Your task to perform on an android device: Open Google Chrome Image 0: 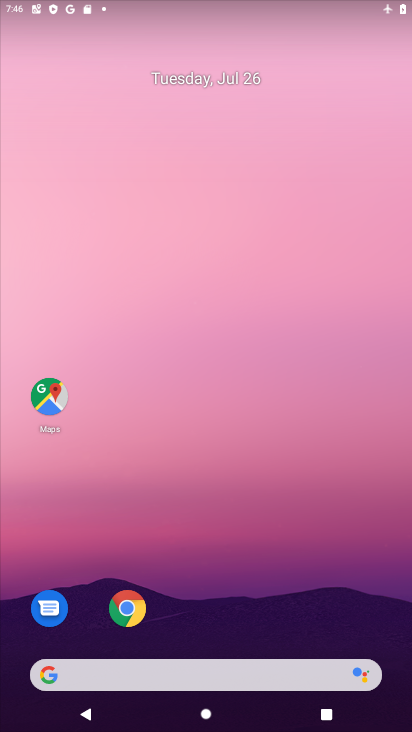
Step 0: press home button
Your task to perform on an android device: Open Google Chrome Image 1: 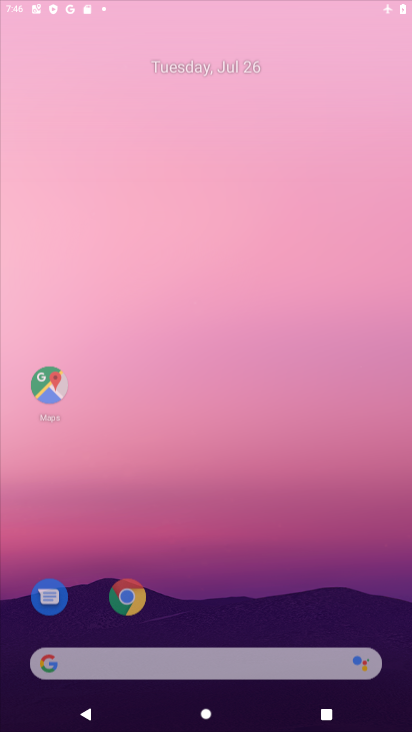
Step 1: drag from (248, 477) to (219, 204)
Your task to perform on an android device: Open Google Chrome Image 2: 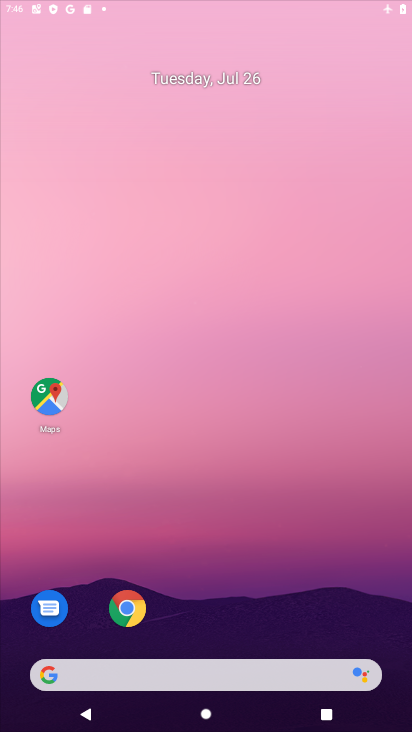
Step 2: drag from (195, 697) to (173, 220)
Your task to perform on an android device: Open Google Chrome Image 3: 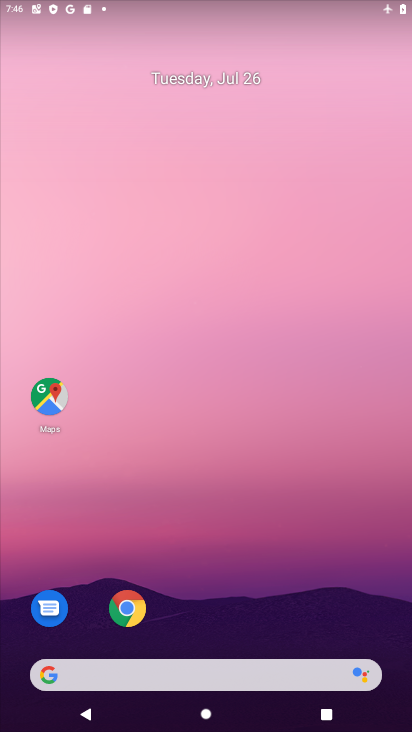
Step 3: drag from (222, 484) to (222, 183)
Your task to perform on an android device: Open Google Chrome Image 4: 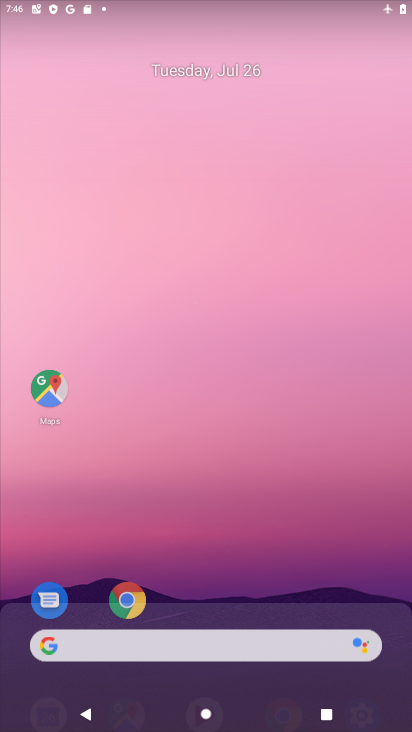
Step 4: drag from (284, 656) to (251, 203)
Your task to perform on an android device: Open Google Chrome Image 5: 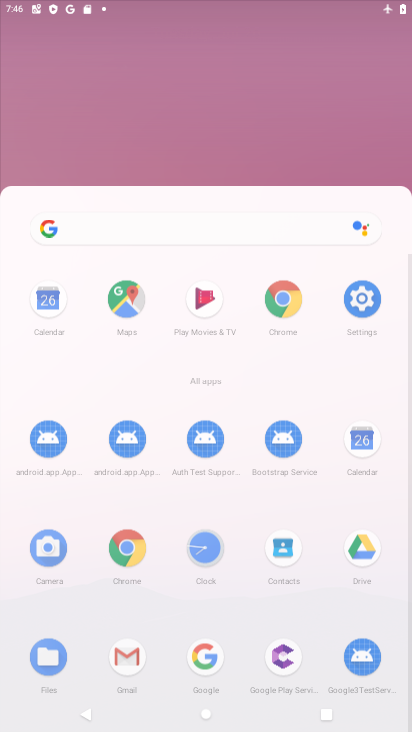
Step 5: drag from (279, 608) to (280, 130)
Your task to perform on an android device: Open Google Chrome Image 6: 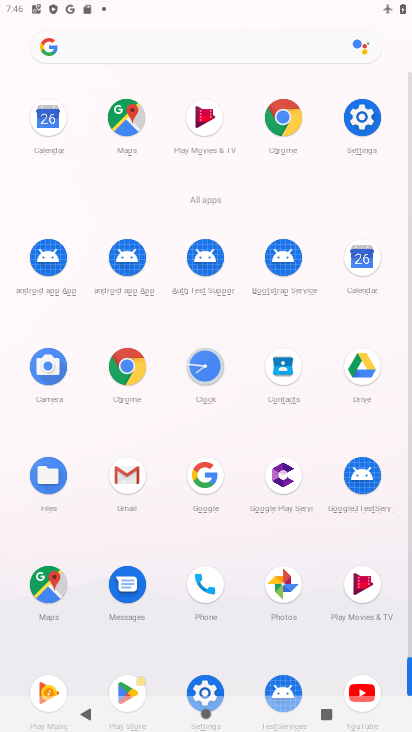
Step 6: drag from (248, 534) to (219, 172)
Your task to perform on an android device: Open Google Chrome Image 7: 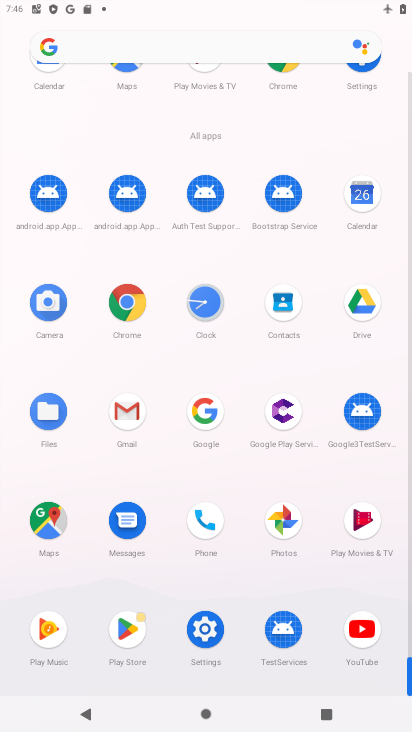
Step 7: drag from (218, 573) to (218, 73)
Your task to perform on an android device: Open Google Chrome Image 8: 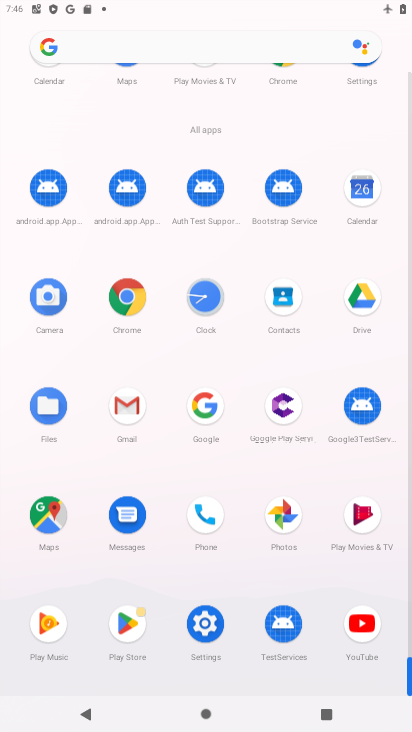
Step 8: drag from (303, 498) to (255, 201)
Your task to perform on an android device: Open Google Chrome Image 9: 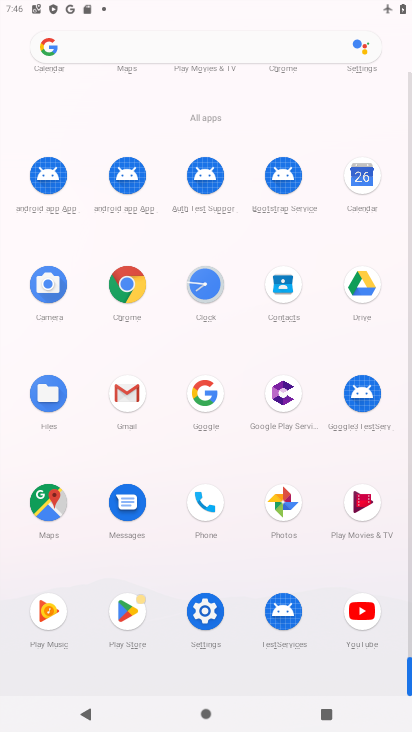
Step 9: drag from (211, 488) to (116, 64)
Your task to perform on an android device: Open Google Chrome Image 10: 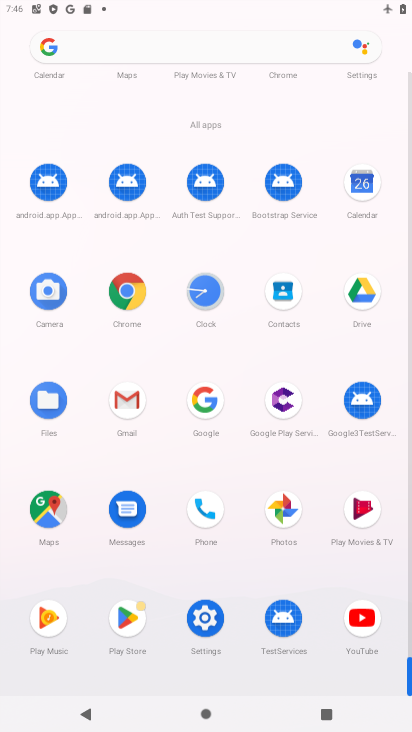
Step 10: drag from (190, 426) to (190, 196)
Your task to perform on an android device: Open Google Chrome Image 11: 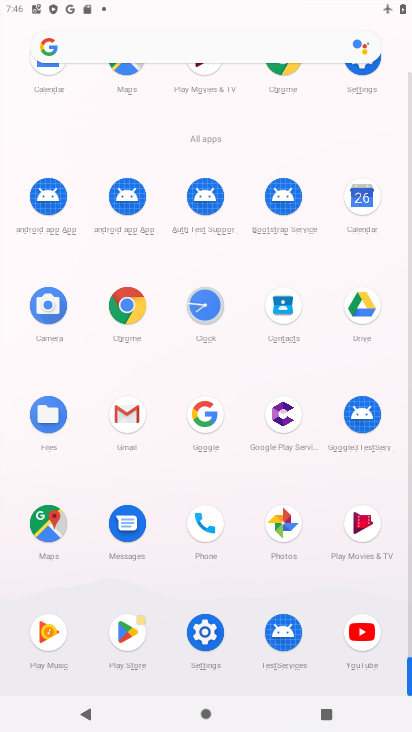
Step 11: click (201, 418)
Your task to perform on an android device: Open Google Chrome Image 12: 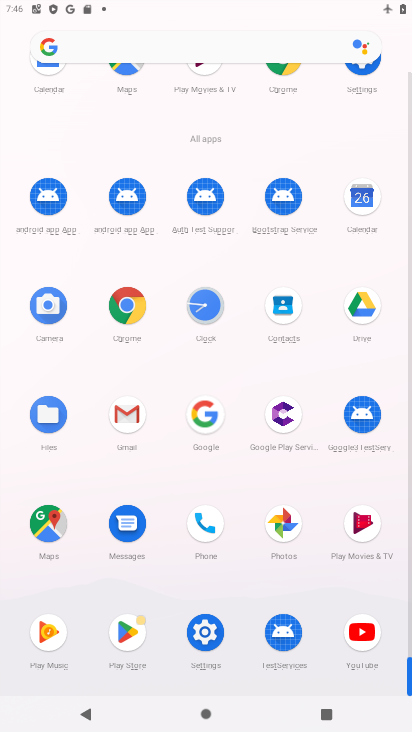
Step 12: click (202, 418)
Your task to perform on an android device: Open Google Chrome Image 13: 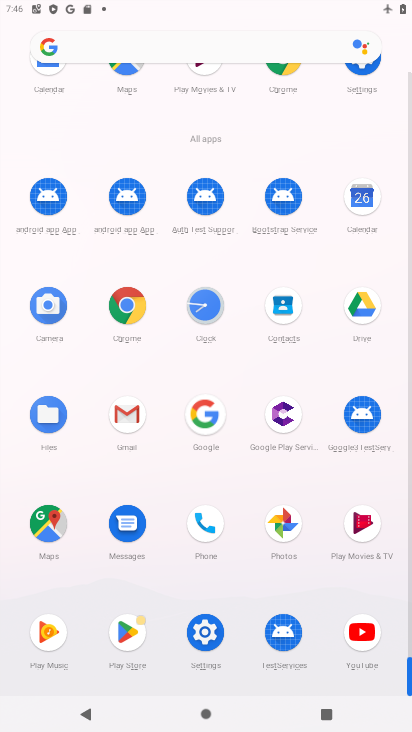
Step 13: click (207, 414)
Your task to perform on an android device: Open Google Chrome Image 14: 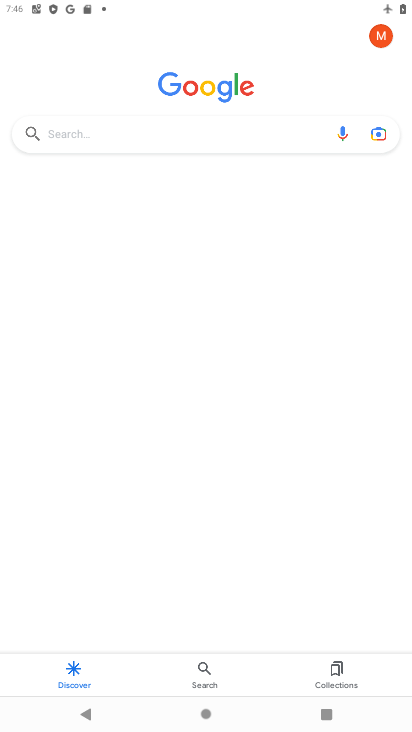
Step 14: task complete